Your task to perform on an android device: Open Google Chrome and open the bookmarks view Image 0: 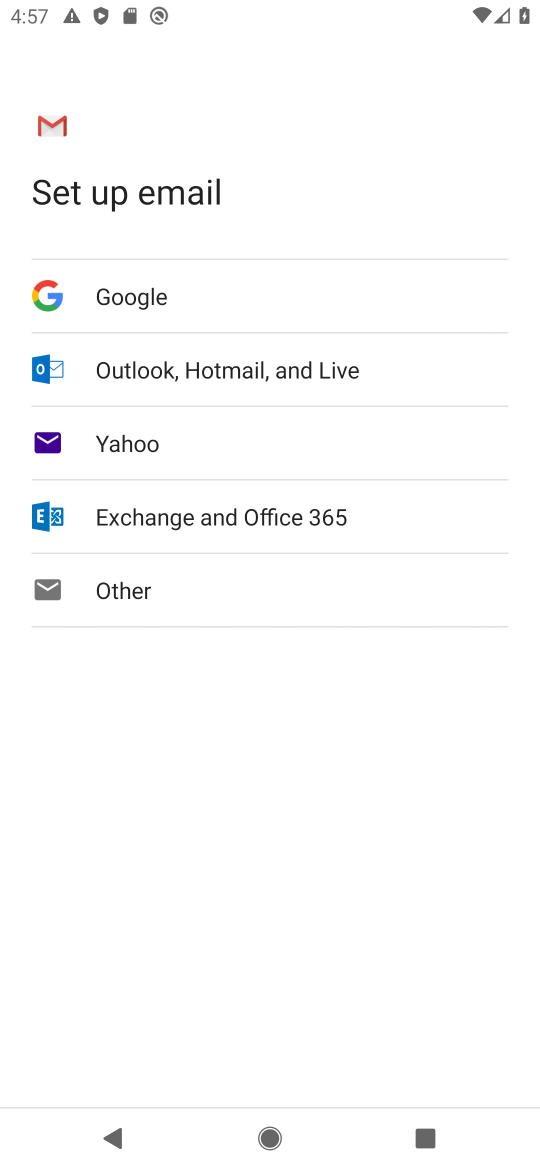
Step 0: press home button
Your task to perform on an android device: Open Google Chrome and open the bookmarks view Image 1: 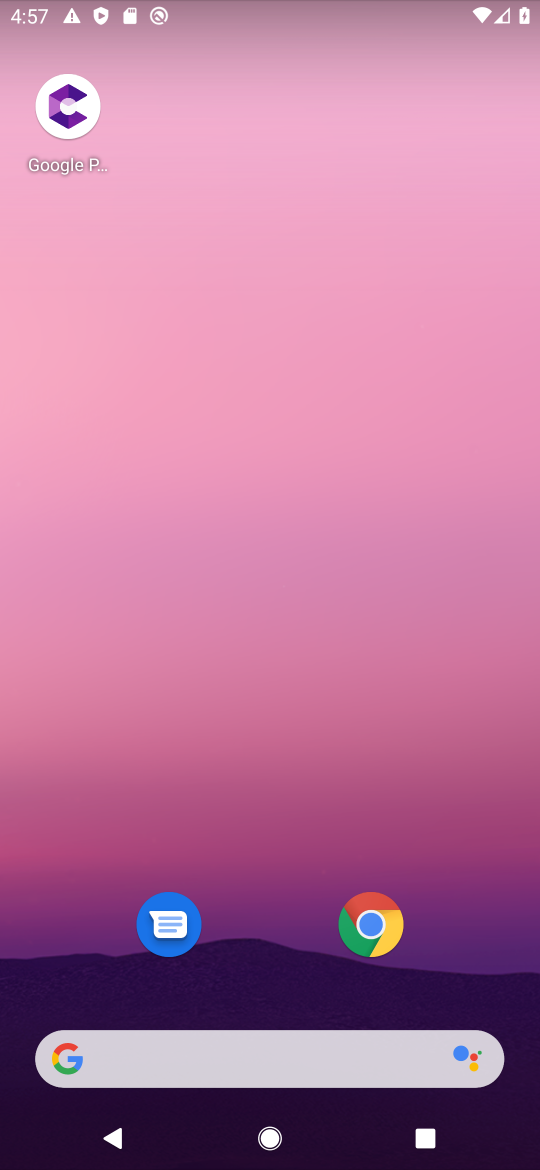
Step 1: click (390, 918)
Your task to perform on an android device: Open Google Chrome and open the bookmarks view Image 2: 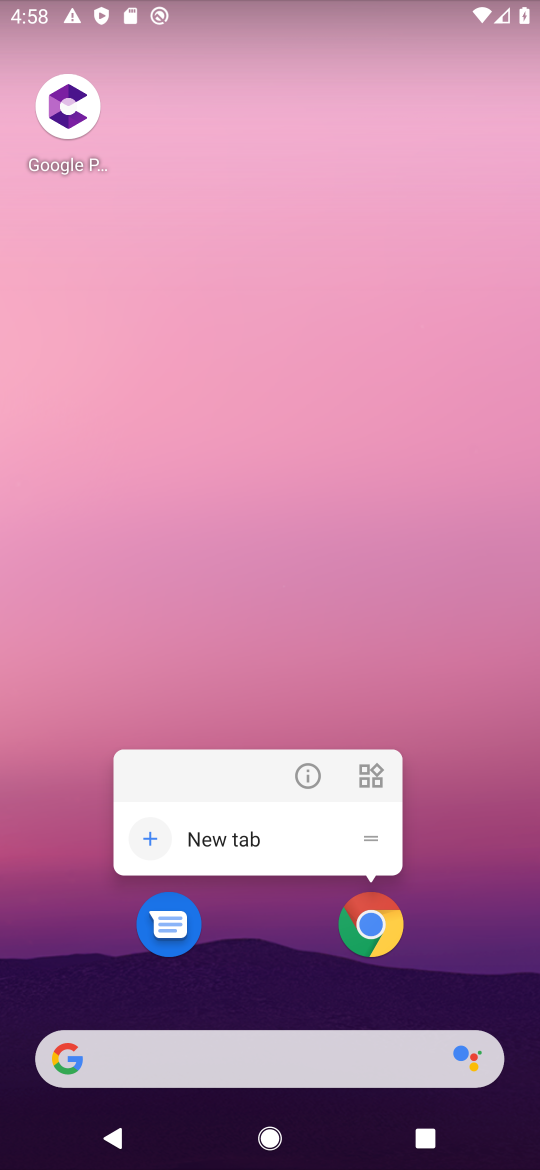
Step 2: click (379, 940)
Your task to perform on an android device: Open Google Chrome and open the bookmarks view Image 3: 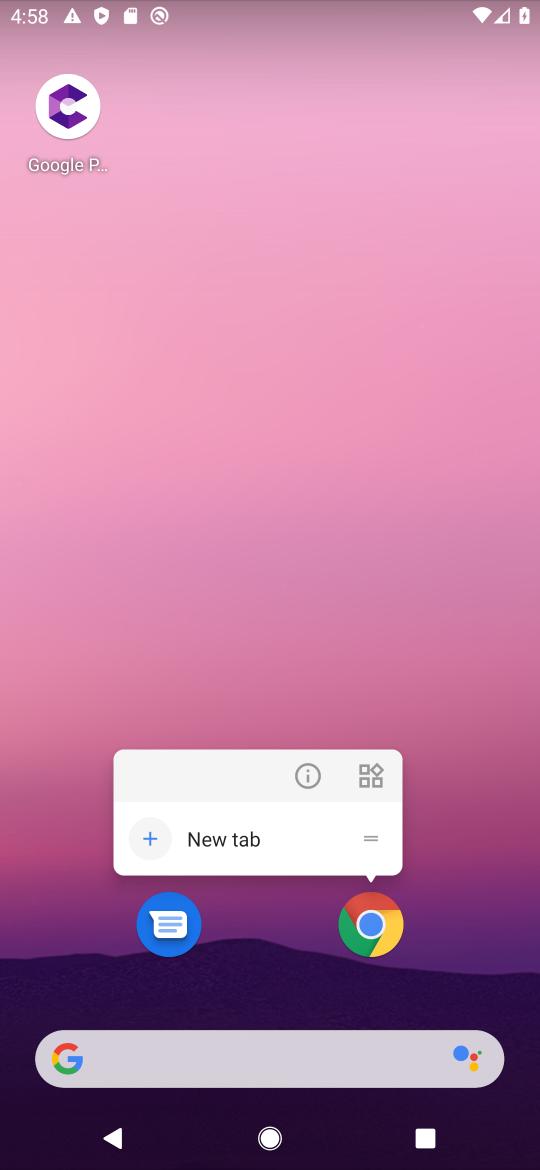
Step 3: click (379, 940)
Your task to perform on an android device: Open Google Chrome and open the bookmarks view Image 4: 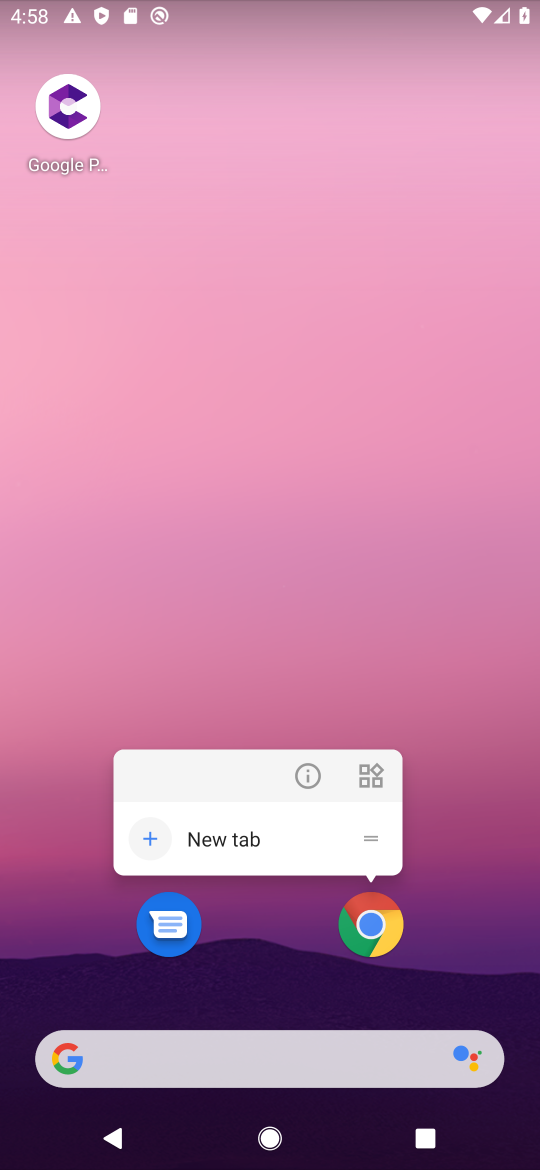
Step 4: click (379, 940)
Your task to perform on an android device: Open Google Chrome and open the bookmarks view Image 5: 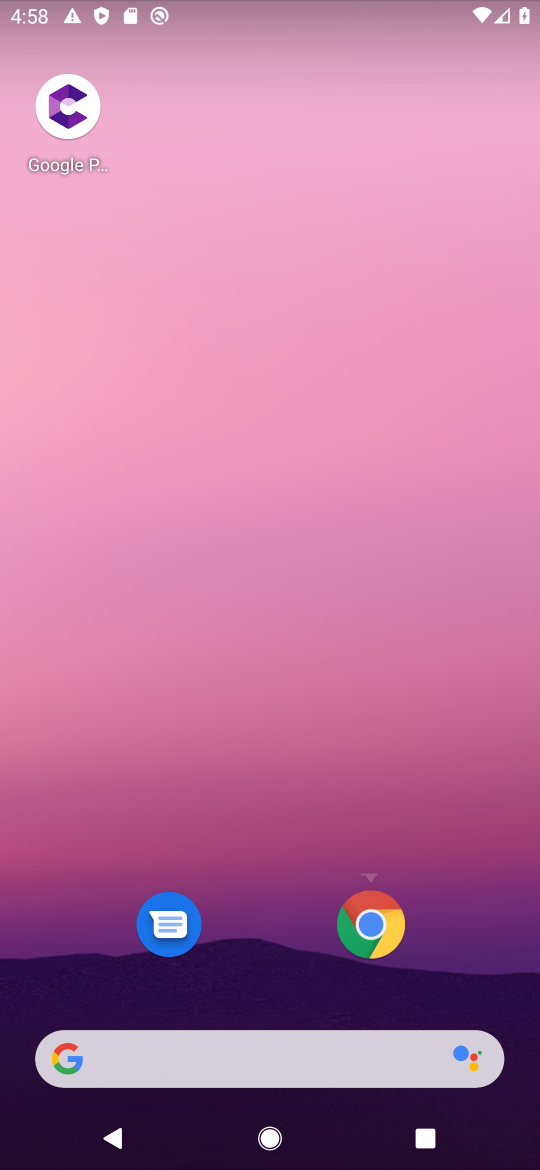
Step 5: click (379, 940)
Your task to perform on an android device: Open Google Chrome and open the bookmarks view Image 6: 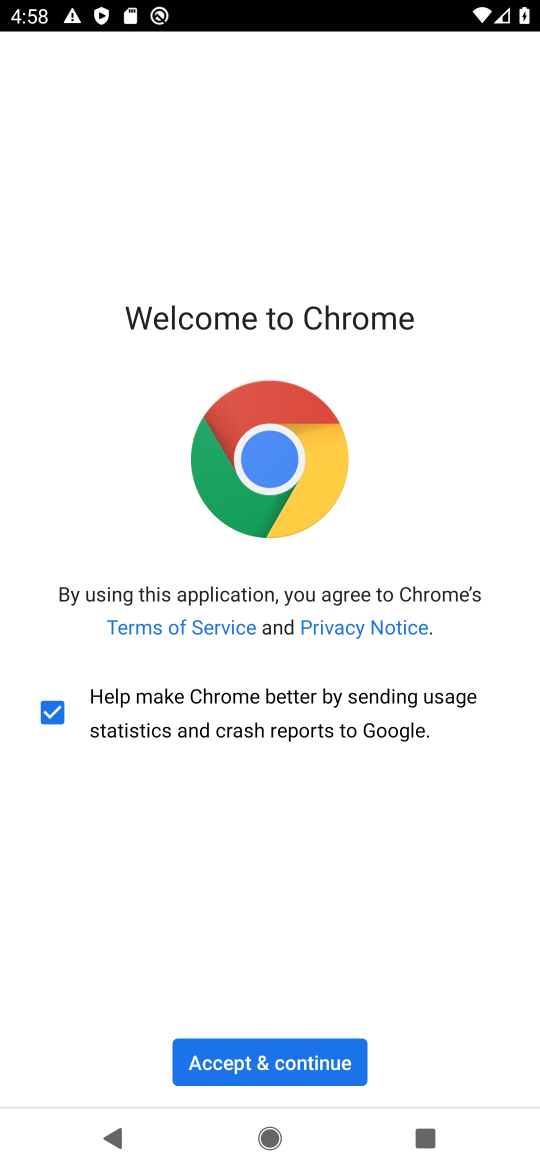
Step 6: click (330, 1065)
Your task to perform on an android device: Open Google Chrome and open the bookmarks view Image 7: 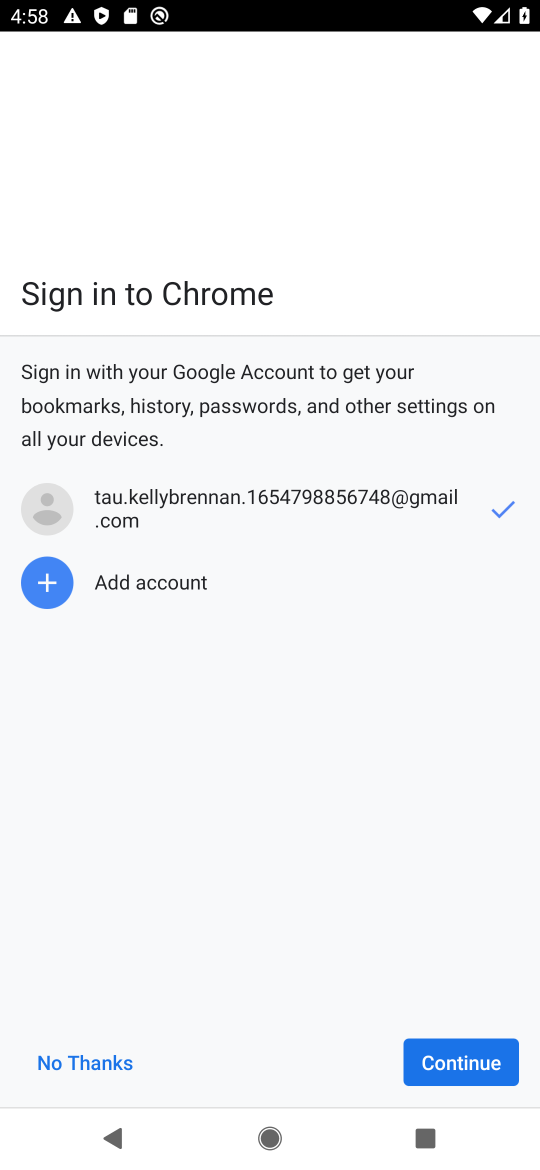
Step 7: click (437, 1056)
Your task to perform on an android device: Open Google Chrome and open the bookmarks view Image 8: 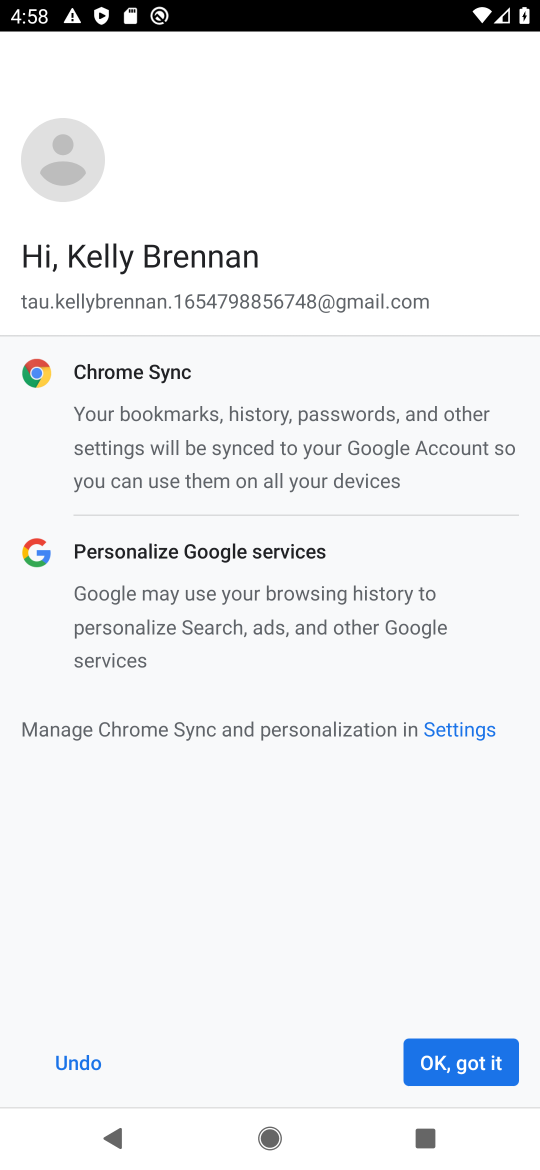
Step 8: click (437, 1056)
Your task to perform on an android device: Open Google Chrome and open the bookmarks view Image 9: 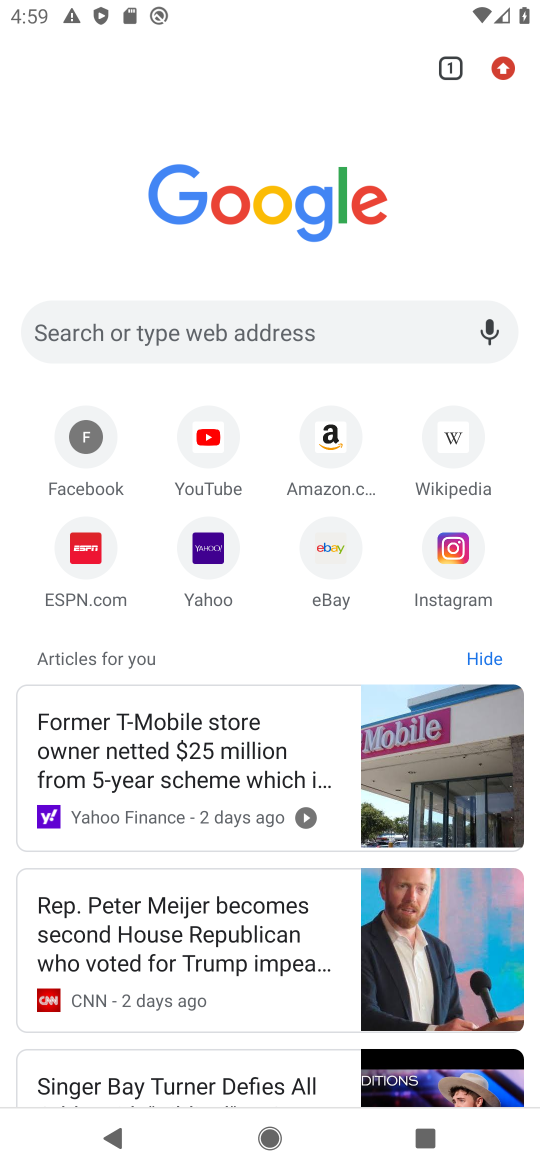
Step 9: click (511, 53)
Your task to perform on an android device: Open Google Chrome and open the bookmarks view Image 10: 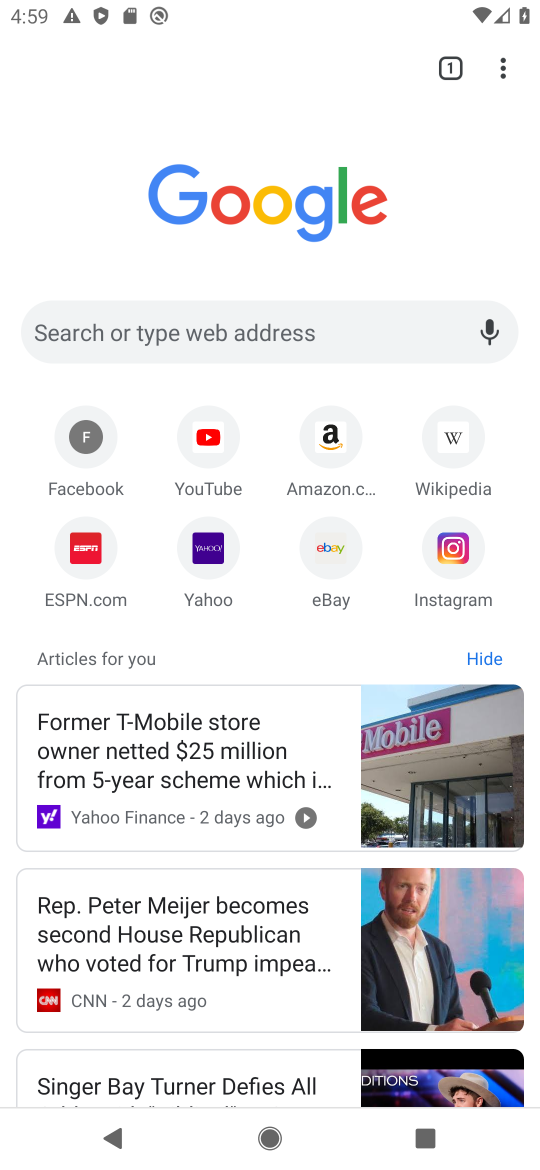
Step 10: click (511, 61)
Your task to perform on an android device: Open Google Chrome and open the bookmarks view Image 11: 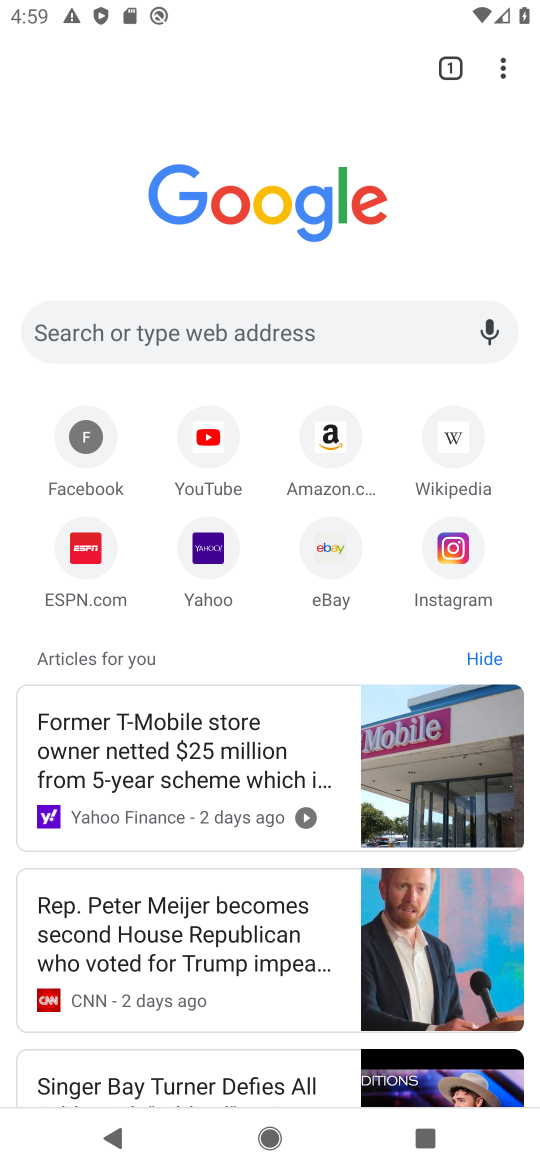
Step 11: click (496, 46)
Your task to perform on an android device: Open Google Chrome and open the bookmarks view Image 12: 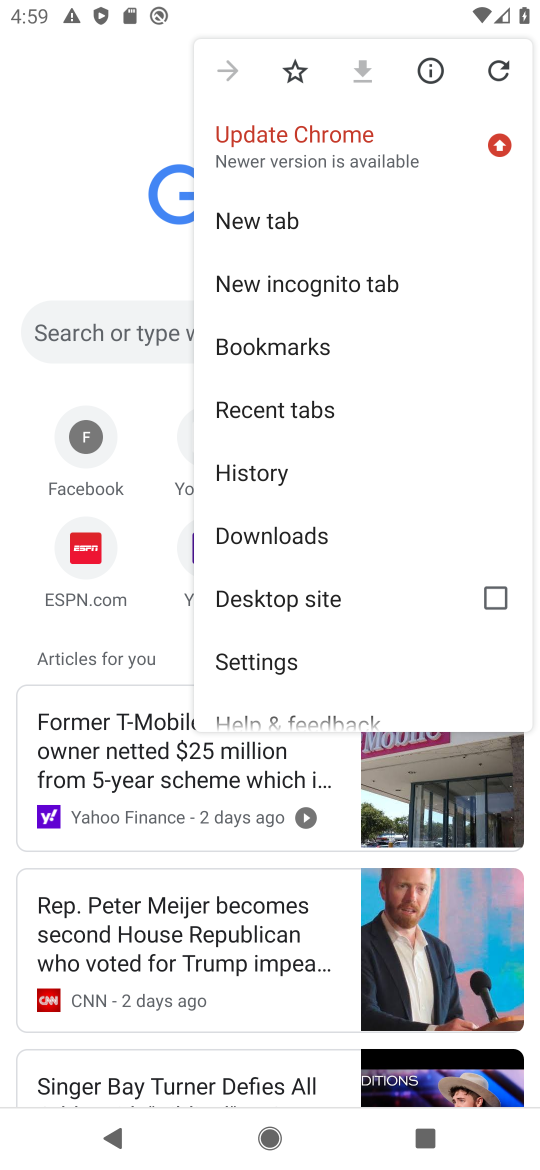
Step 12: click (345, 345)
Your task to perform on an android device: Open Google Chrome and open the bookmarks view Image 13: 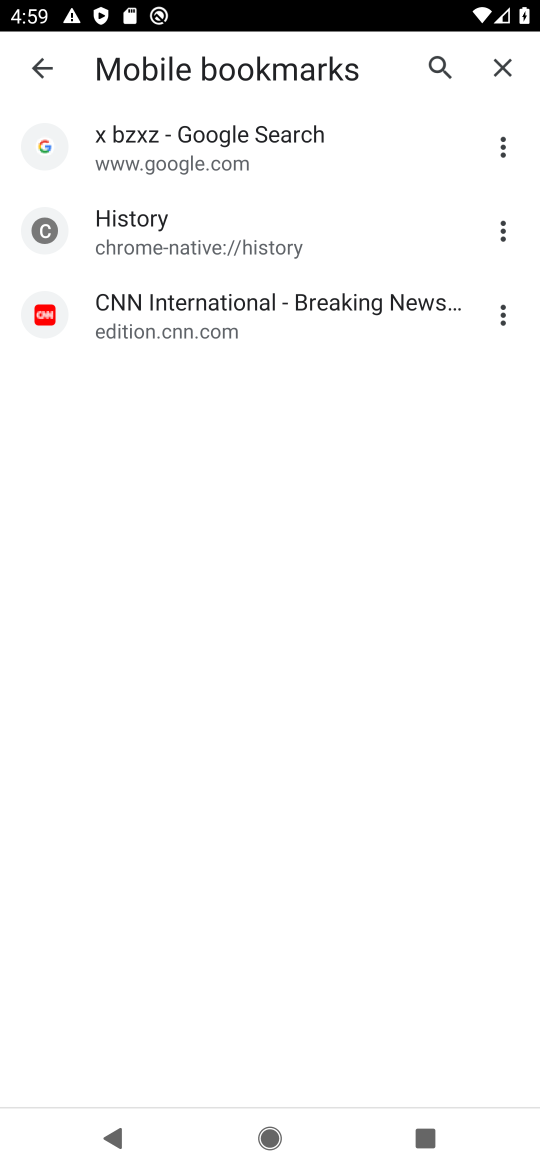
Step 13: task complete